Your task to perform on an android device: turn off picture-in-picture Image 0: 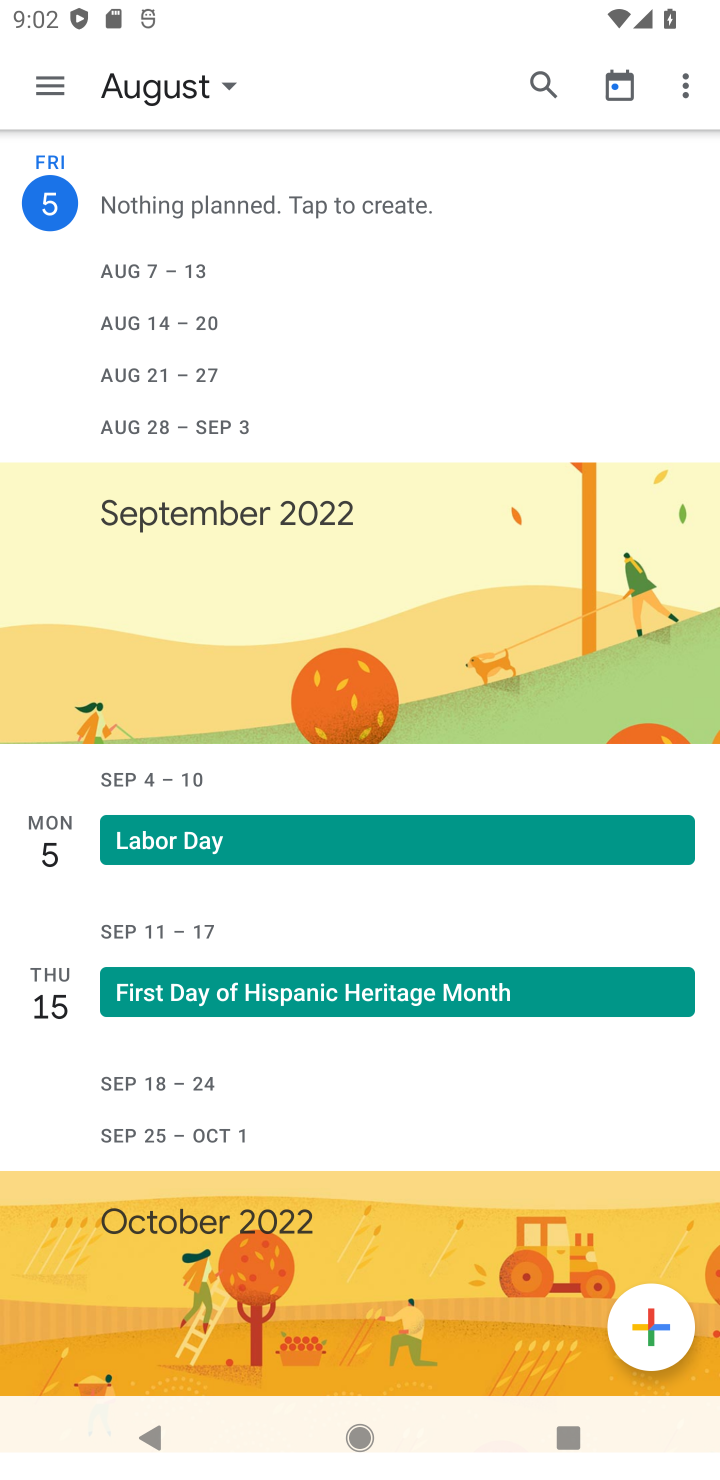
Step 0: press home button
Your task to perform on an android device: turn off picture-in-picture Image 1: 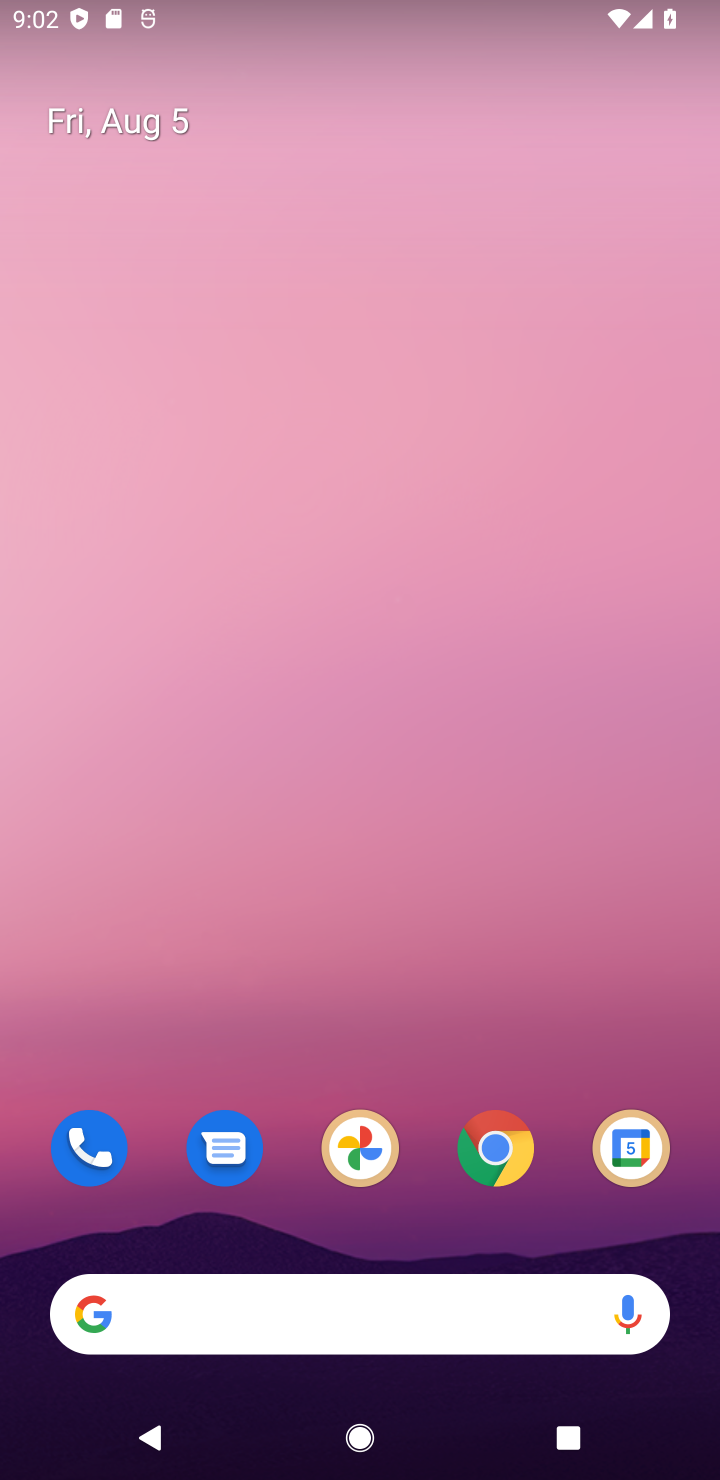
Step 1: drag from (441, 1242) to (500, 231)
Your task to perform on an android device: turn off picture-in-picture Image 2: 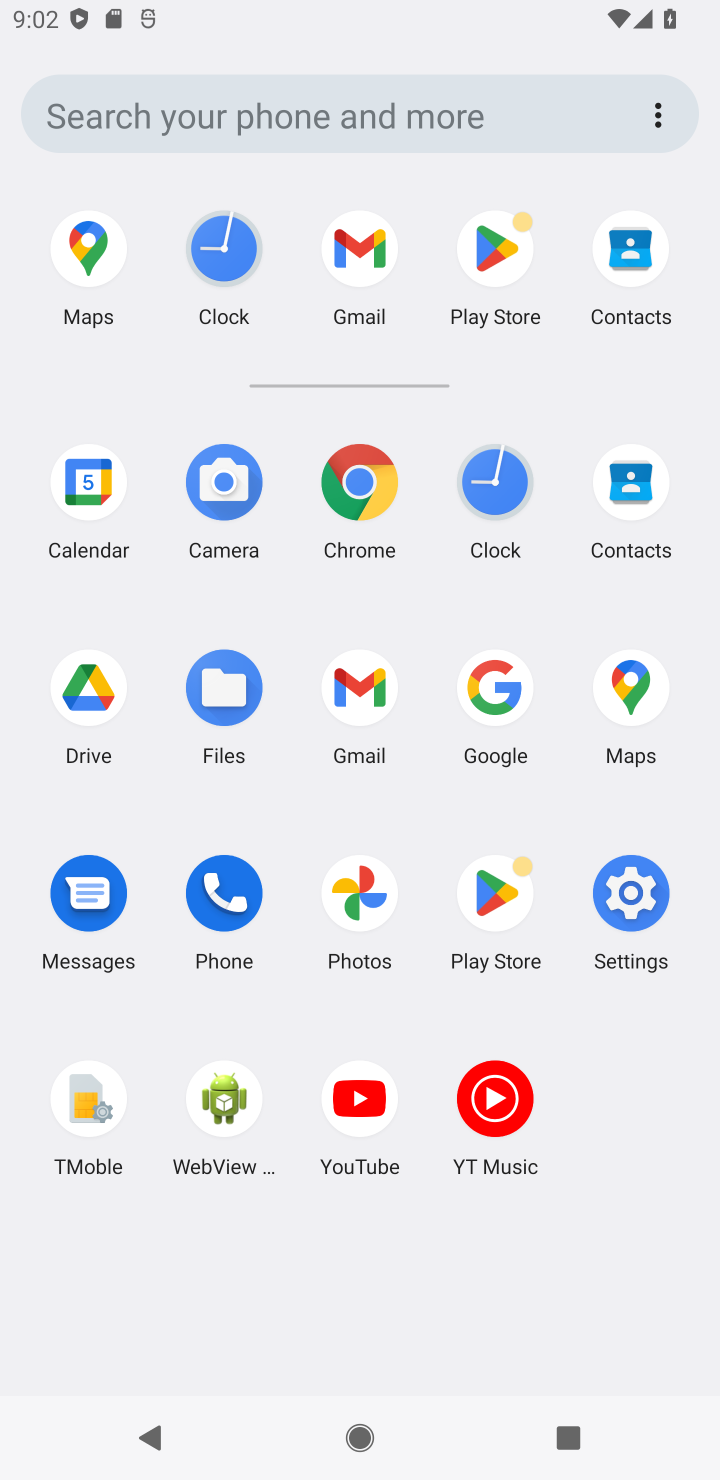
Step 2: click (645, 903)
Your task to perform on an android device: turn off picture-in-picture Image 3: 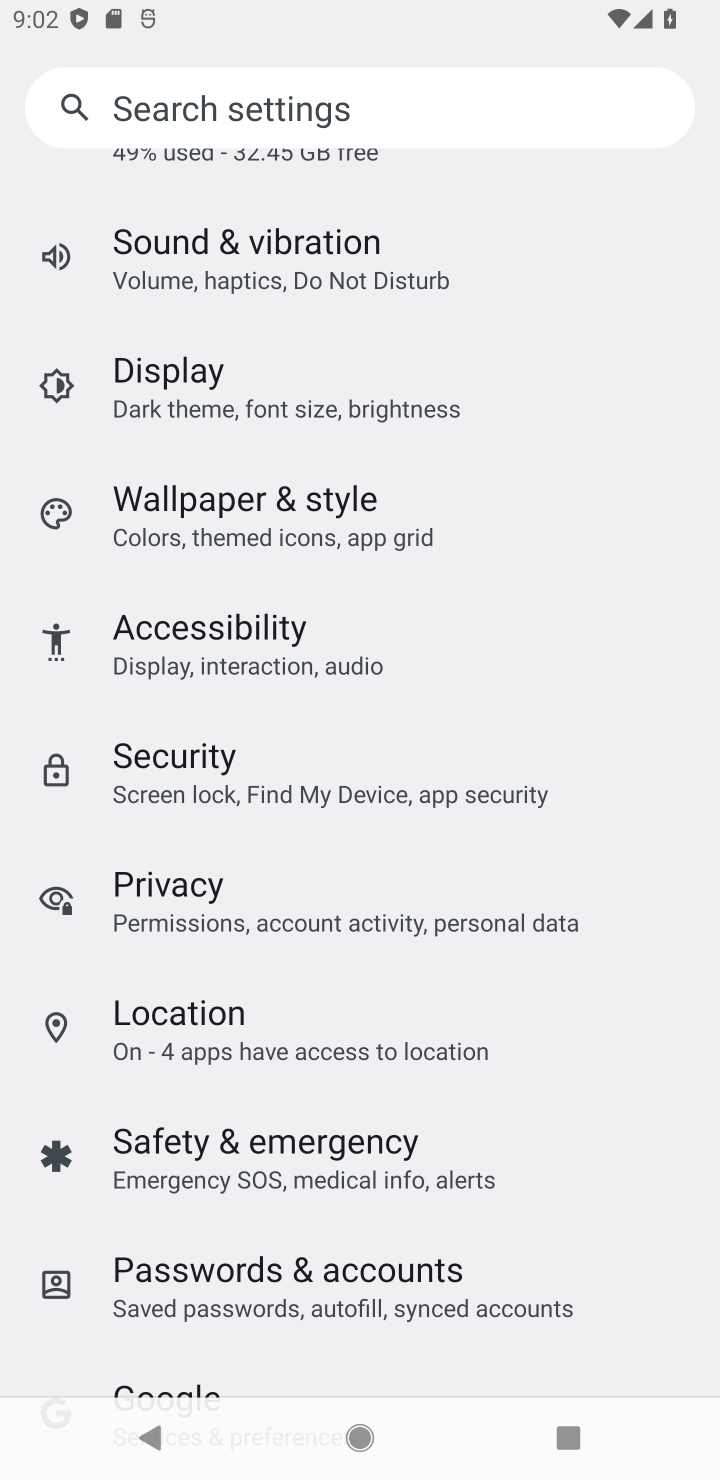
Step 3: task complete